Your task to perform on an android device: check google app version Image 0: 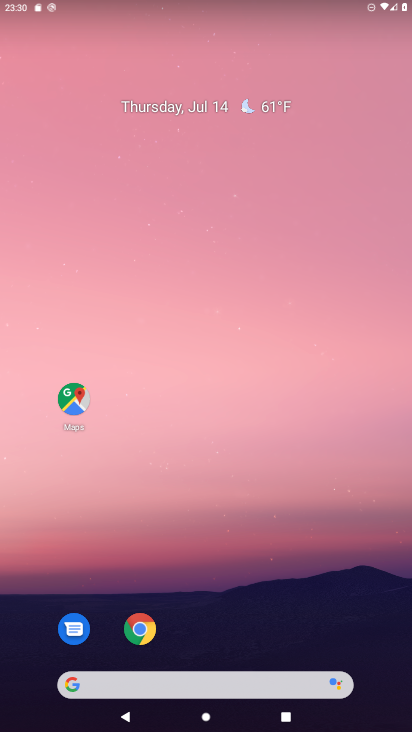
Step 0: click (126, 683)
Your task to perform on an android device: check google app version Image 1: 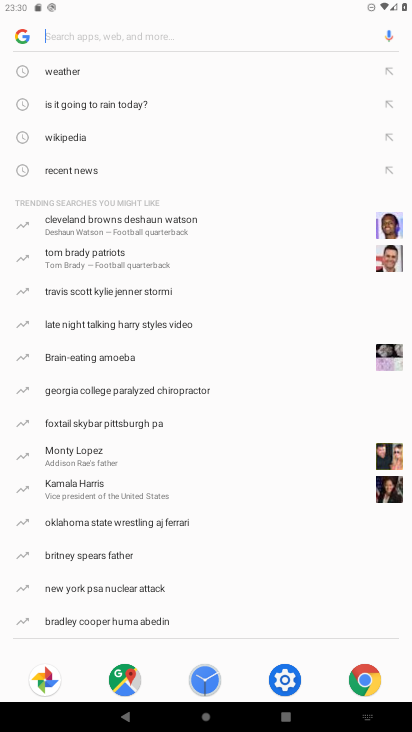
Step 1: click (26, 33)
Your task to perform on an android device: check google app version Image 2: 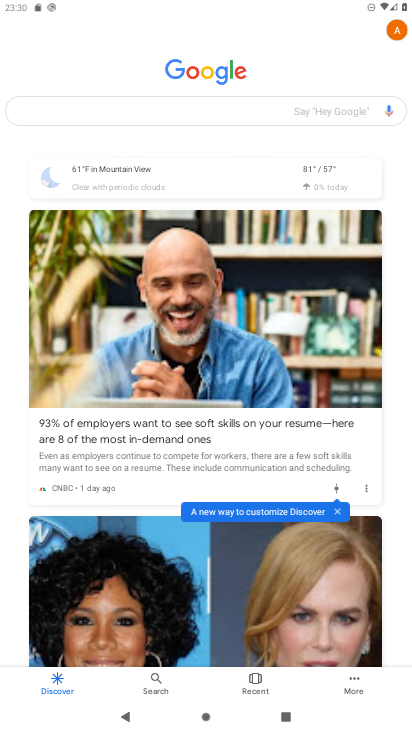
Step 2: click (364, 688)
Your task to perform on an android device: check google app version Image 3: 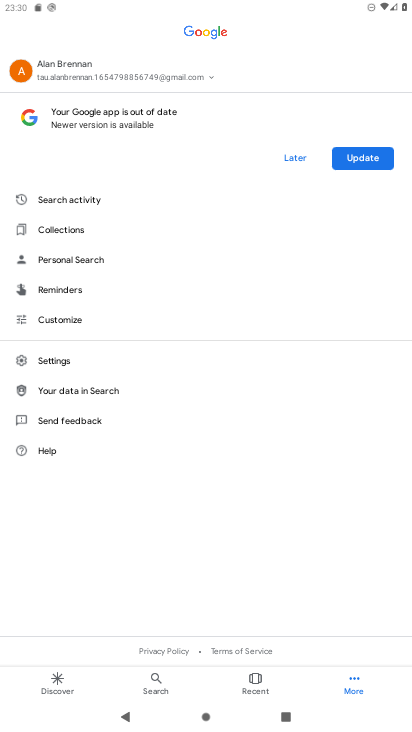
Step 3: click (80, 356)
Your task to perform on an android device: check google app version Image 4: 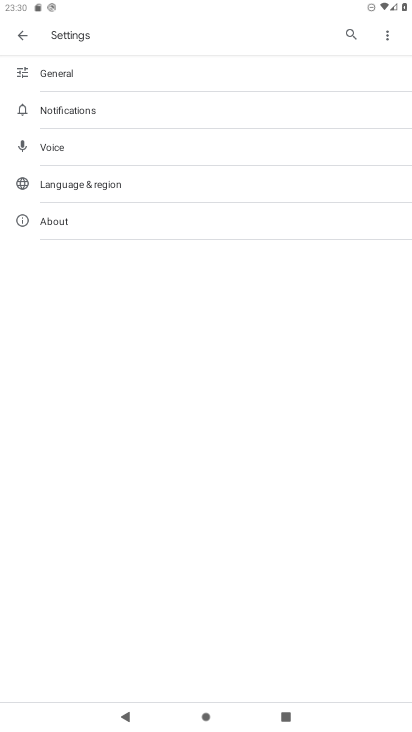
Step 4: click (101, 227)
Your task to perform on an android device: check google app version Image 5: 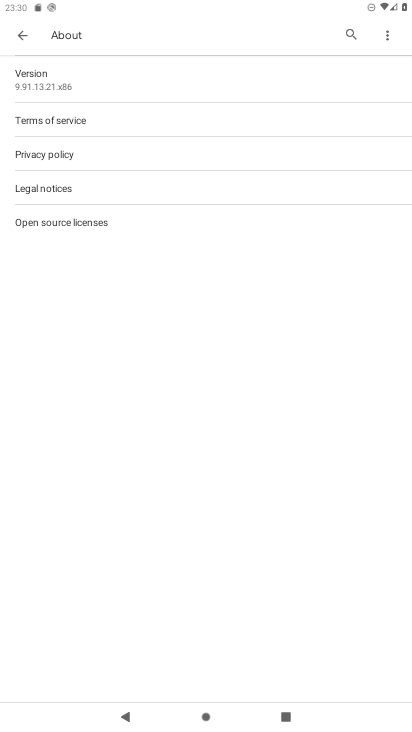
Step 5: task complete